Your task to perform on an android device: install app "LiveIn - Share Your Moment" Image 0: 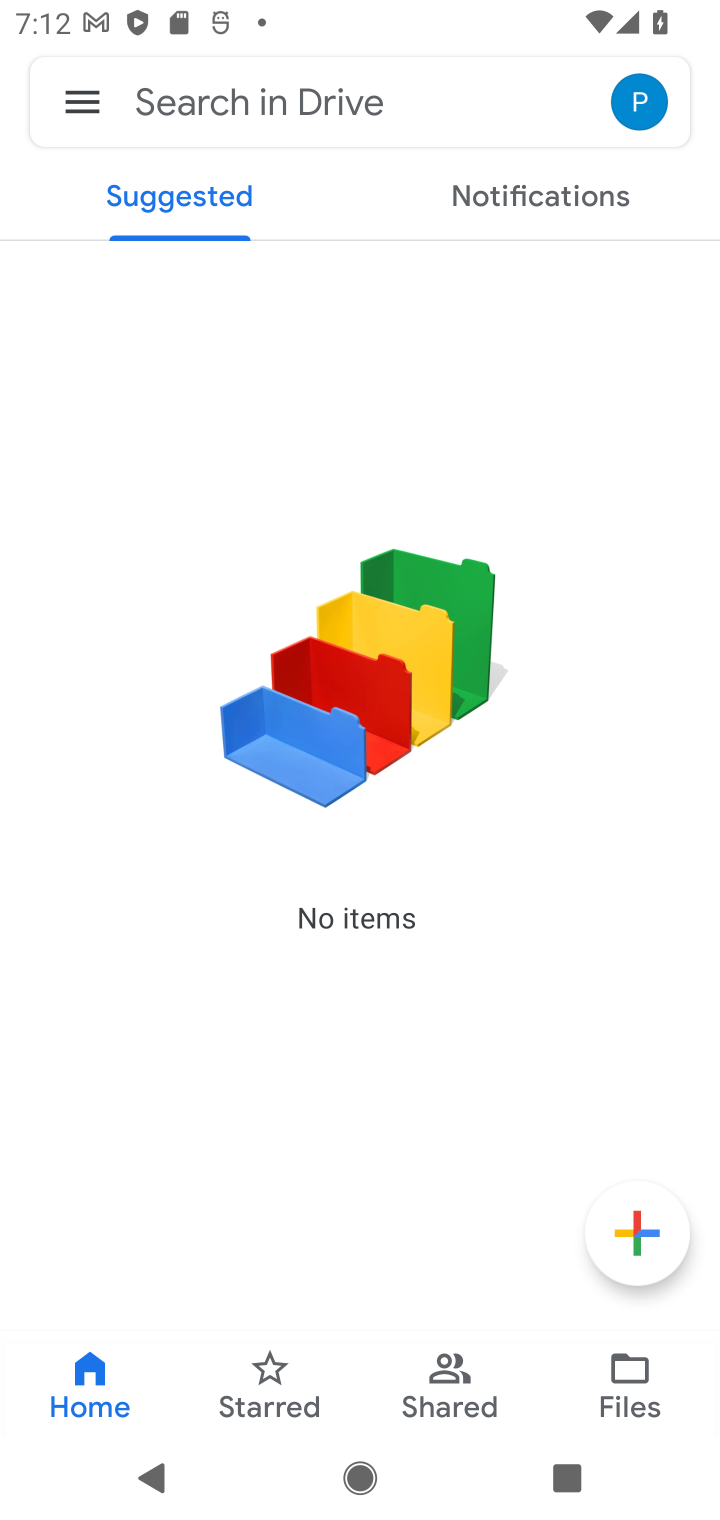
Step 0: press back button
Your task to perform on an android device: install app "LiveIn - Share Your Moment" Image 1: 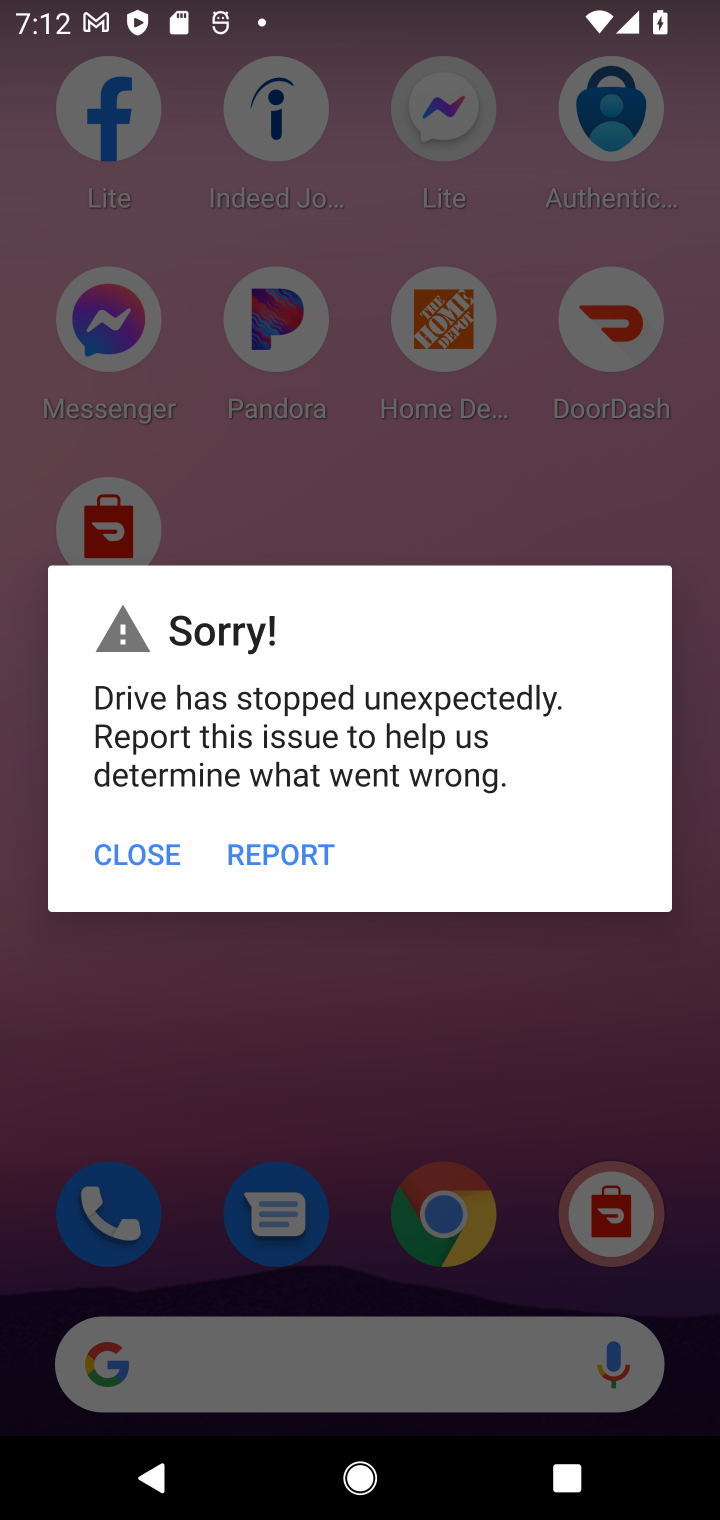
Step 1: click (126, 864)
Your task to perform on an android device: install app "LiveIn - Share Your Moment" Image 2: 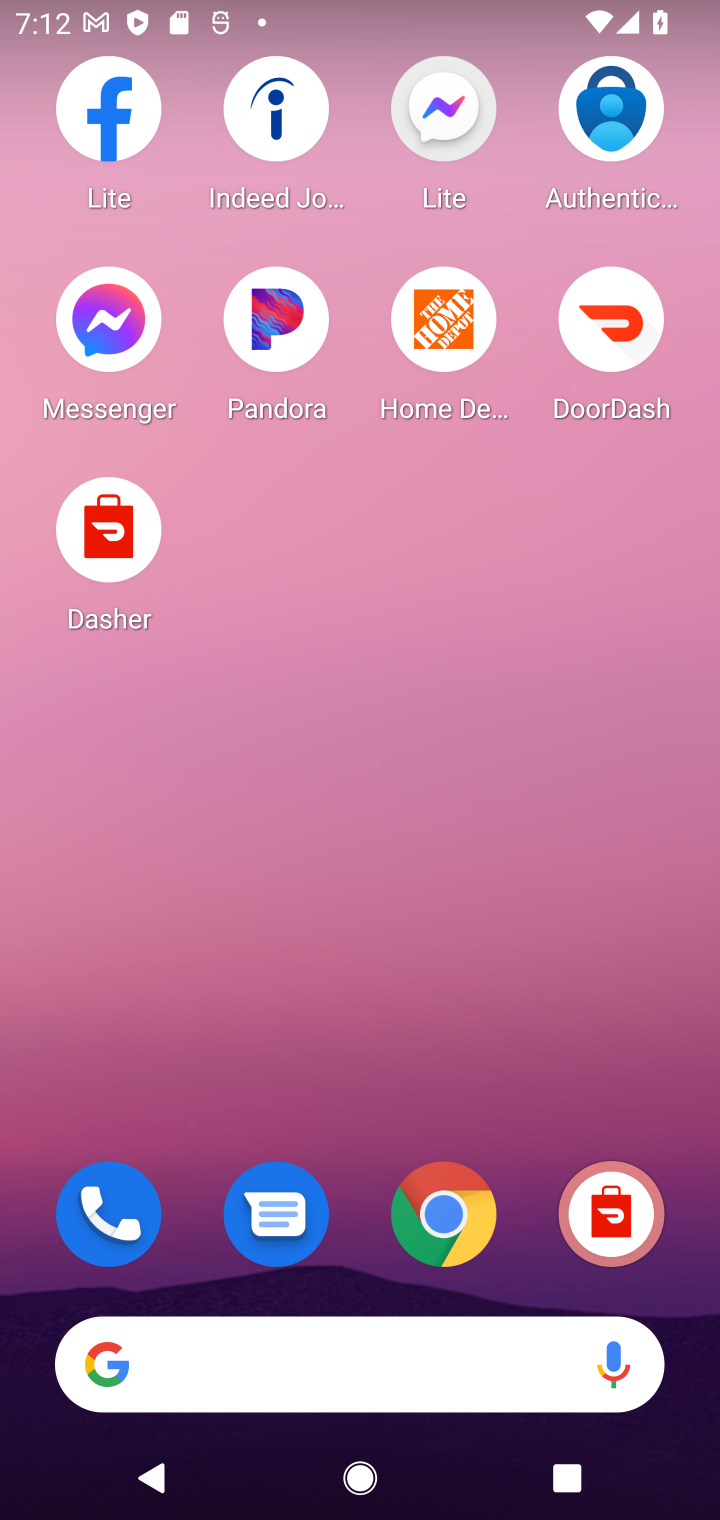
Step 2: drag from (356, 796) to (395, 94)
Your task to perform on an android device: install app "LiveIn - Share Your Moment" Image 3: 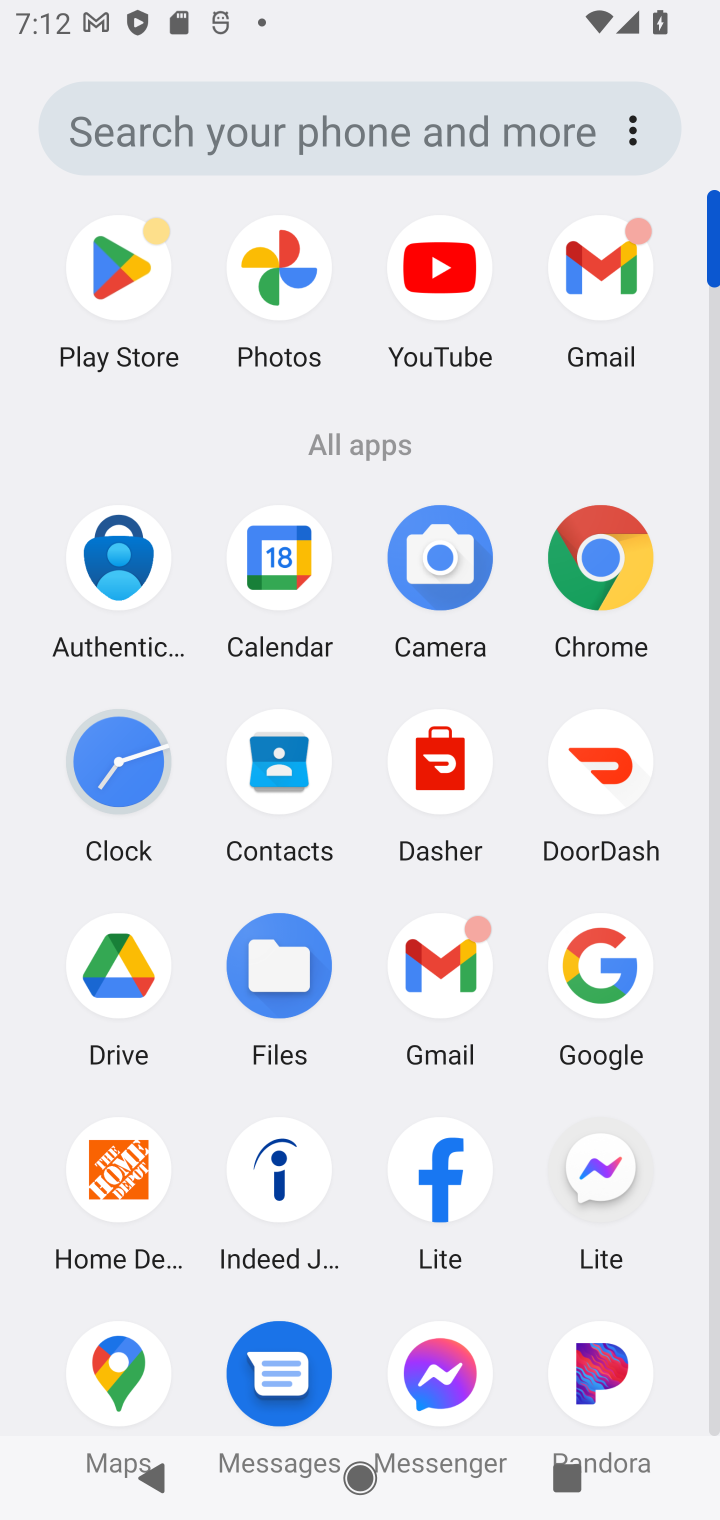
Step 3: click (130, 260)
Your task to perform on an android device: install app "LiveIn - Share Your Moment" Image 4: 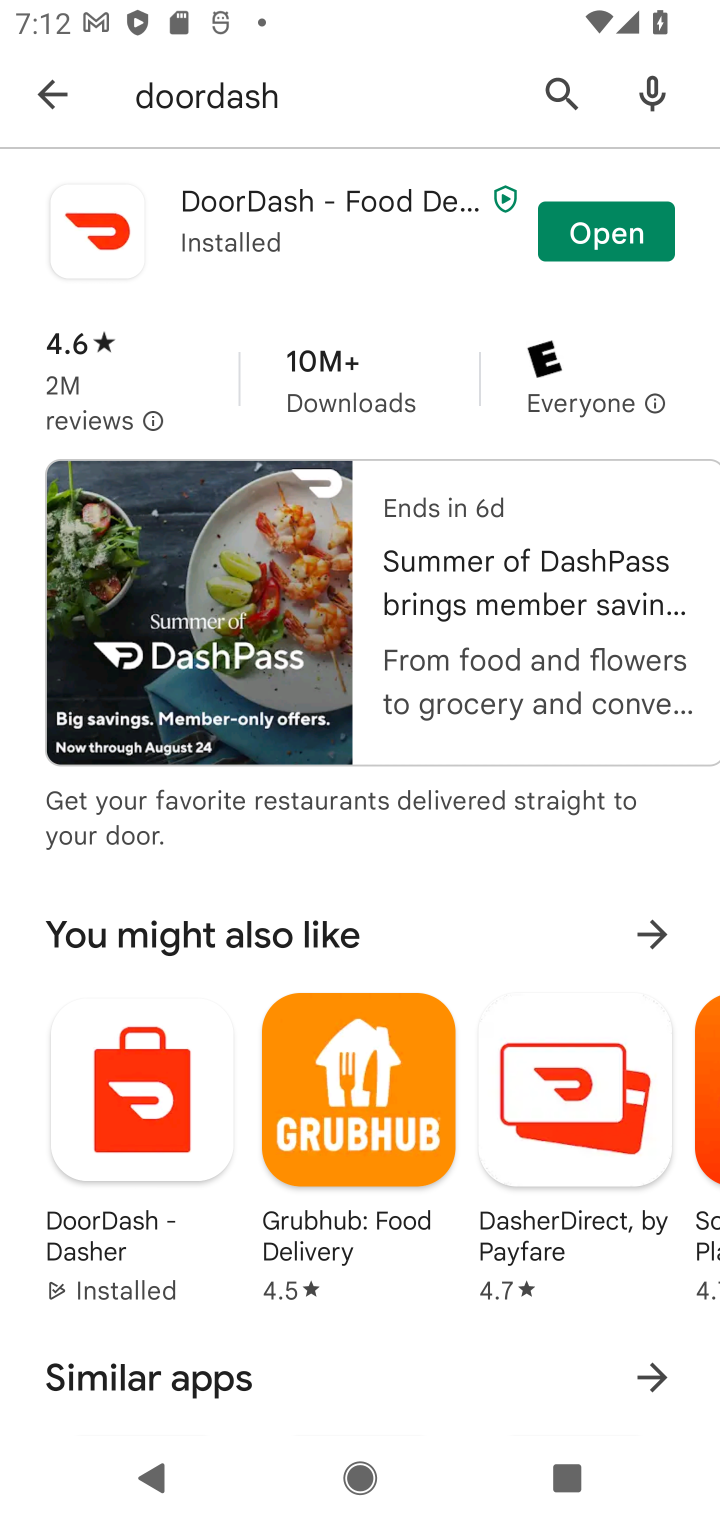
Step 4: click (580, 96)
Your task to perform on an android device: install app "LiveIn - Share Your Moment" Image 5: 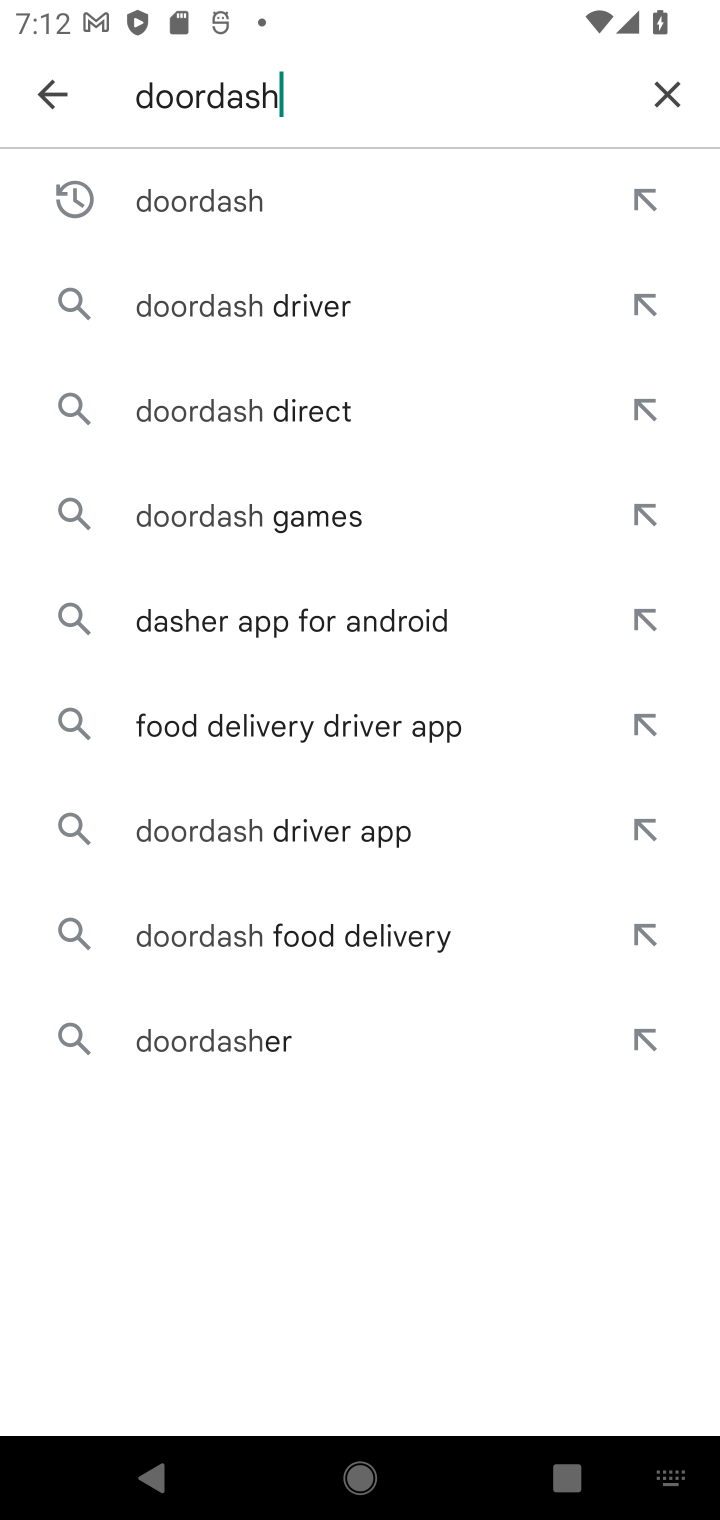
Step 5: click (655, 110)
Your task to perform on an android device: install app "LiveIn - Share Your Moment" Image 6: 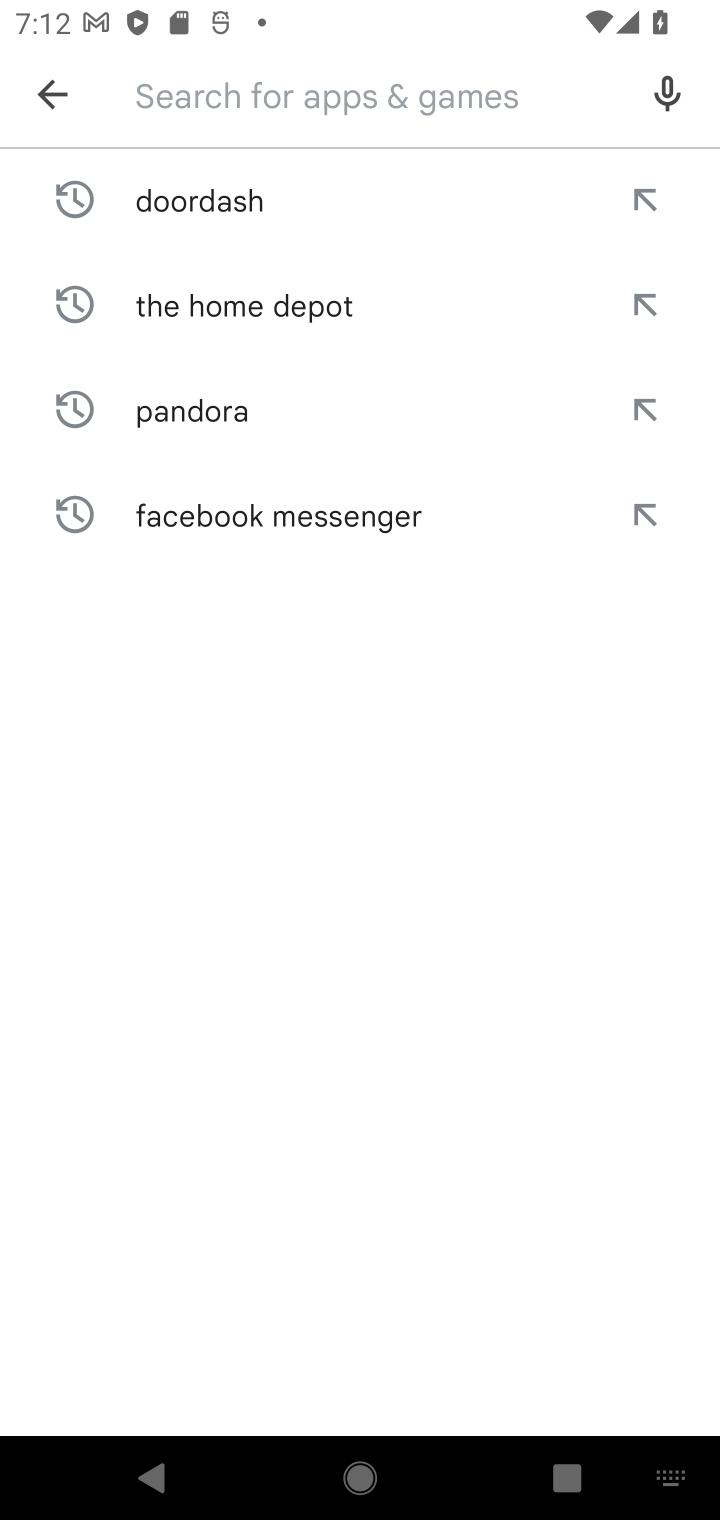
Step 6: click (345, 135)
Your task to perform on an android device: install app "LiveIn - Share Your Moment" Image 7: 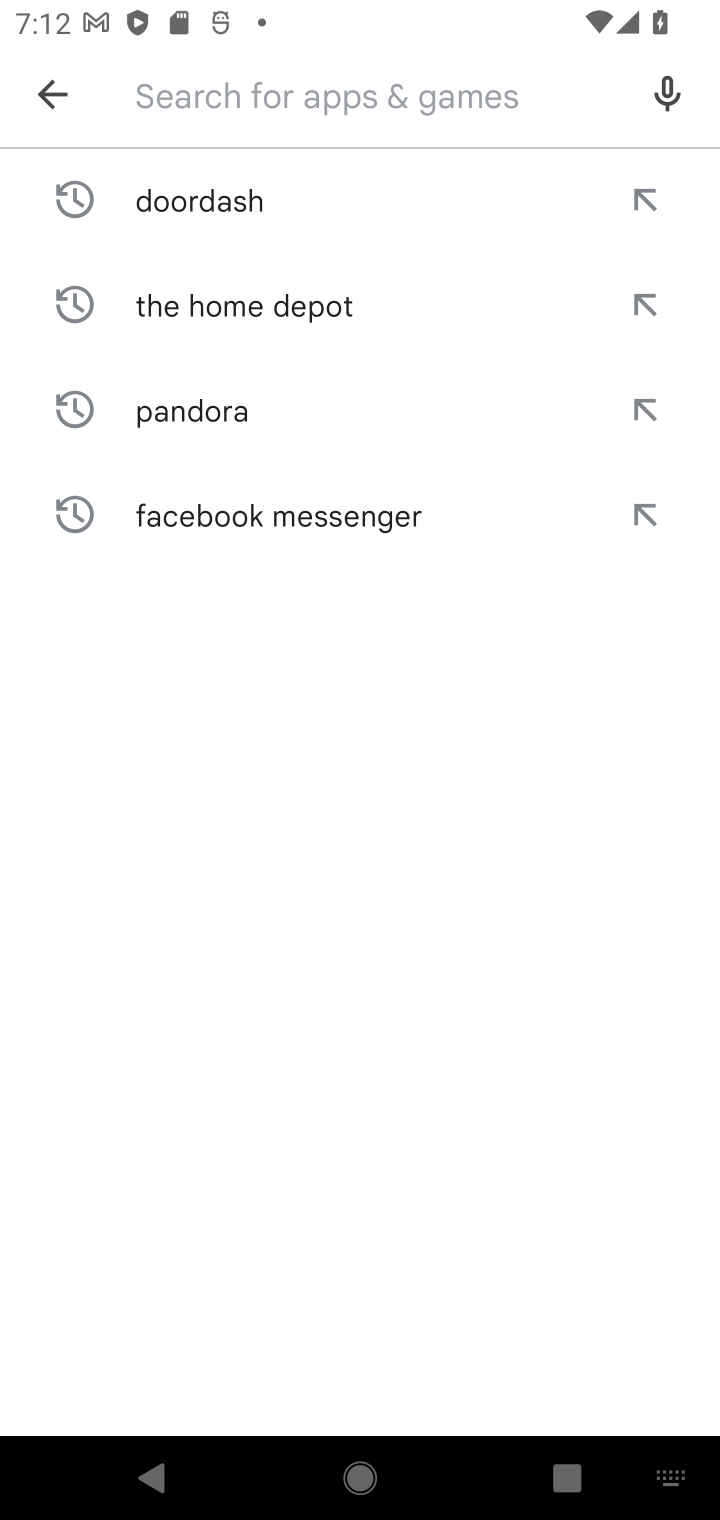
Step 7: type "liveln"
Your task to perform on an android device: install app "LiveIn - Share Your Moment" Image 8: 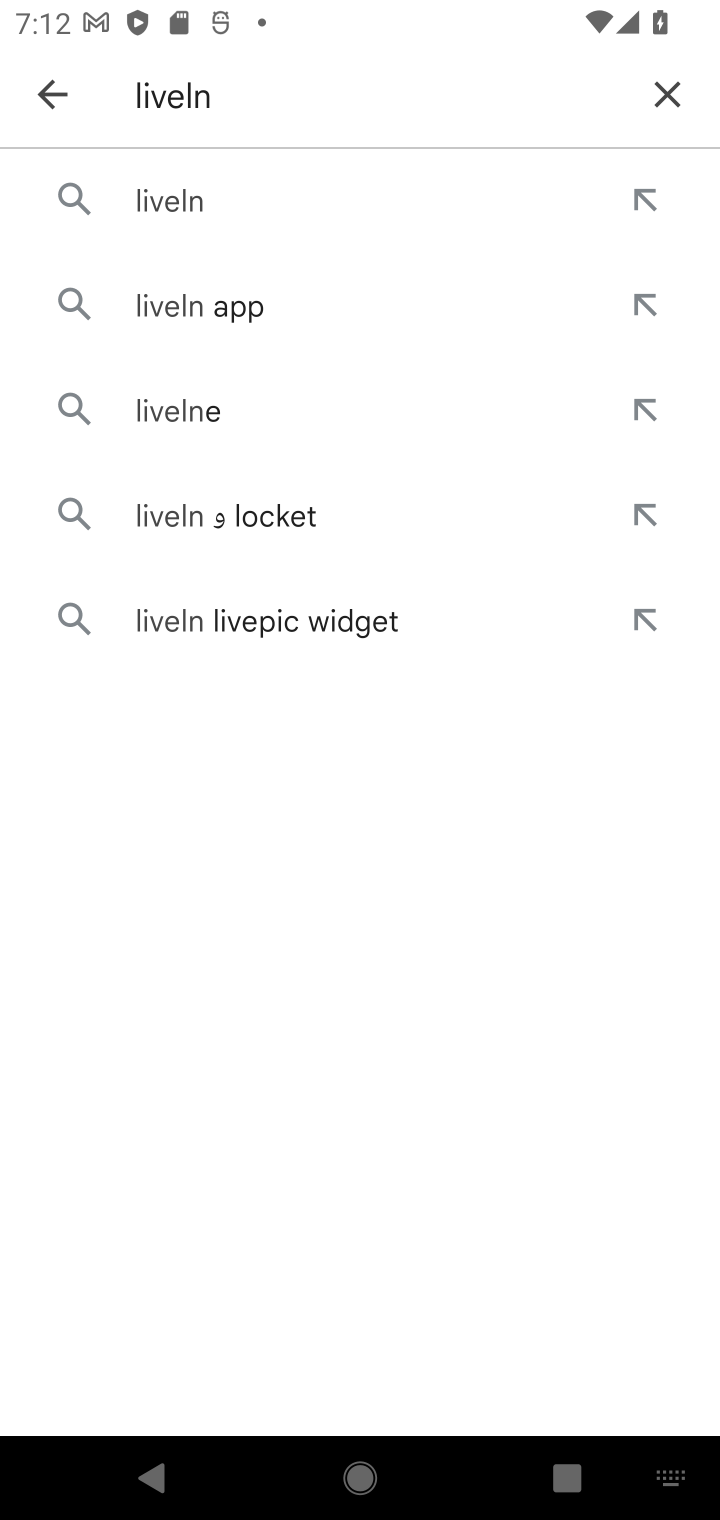
Step 8: click (202, 215)
Your task to perform on an android device: install app "LiveIn - Share Your Moment" Image 9: 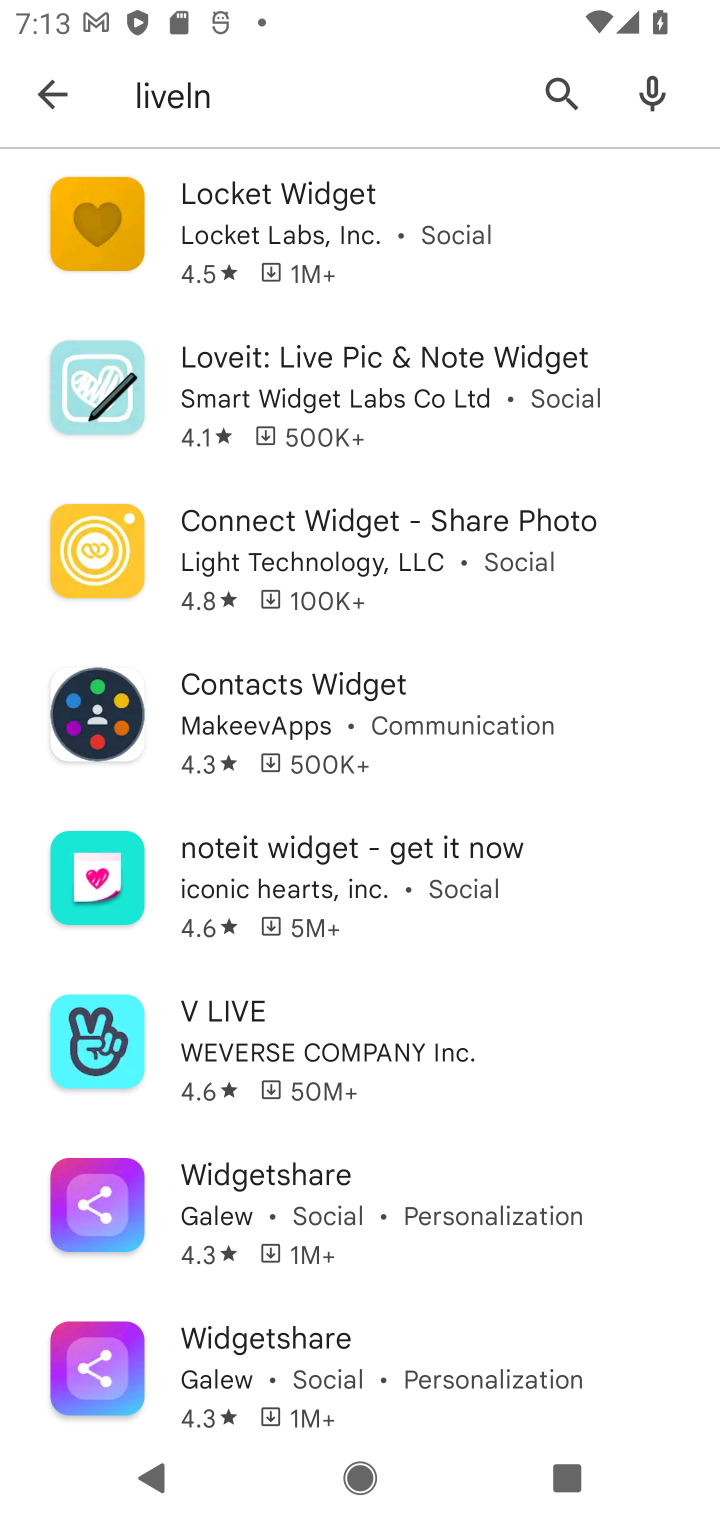
Step 9: task complete